Your task to perform on an android device: Show me popular games on the Play Store Image 0: 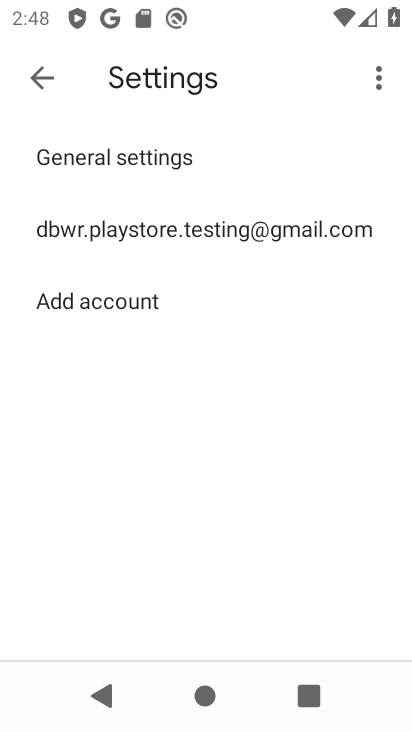
Step 0: press home button
Your task to perform on an android device: Show me popular games on the Play Store Image 1: 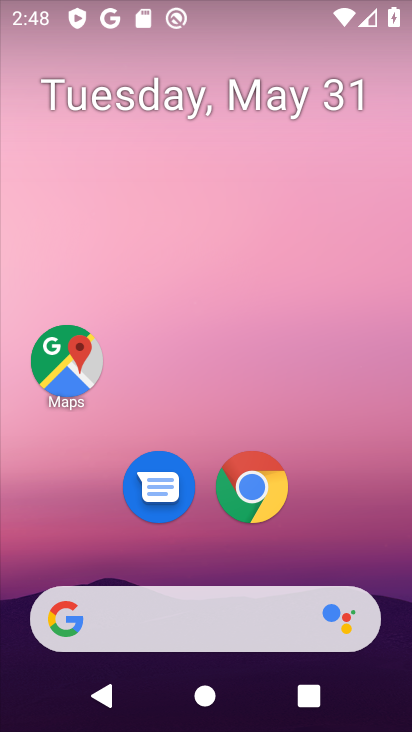
Step 1: drag from (6, 580) to (215, 121)
Your task to perform on an android device: Show me popular games on the Play Store Image 2: 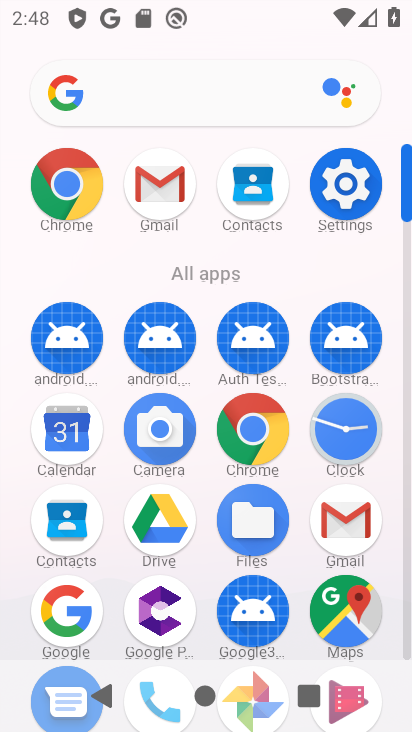
Step 2: drag from (216, 580) to (304, 303)
Your task to perform on an android device: Show me popular games on the Play Store Image 3: 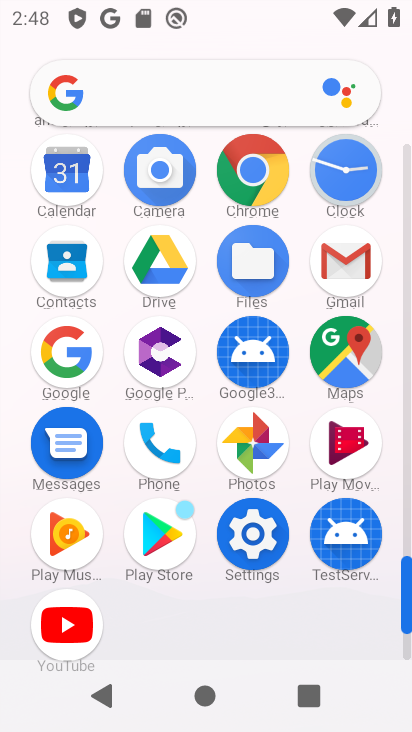
Step 3: click (171, 552)
Your task to perform on an android device: Show me popular games on the Play Store Image 4: 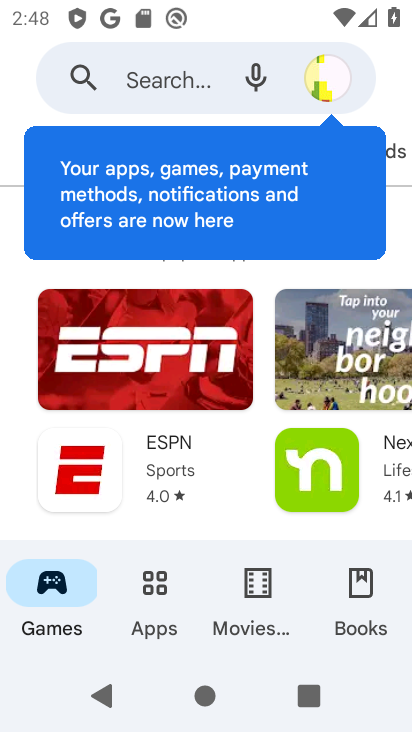
Step 4: drag from (151, 542) to (281, 166)
Your task to perform on an android device: Show me popular games on the Play Store Image 5: 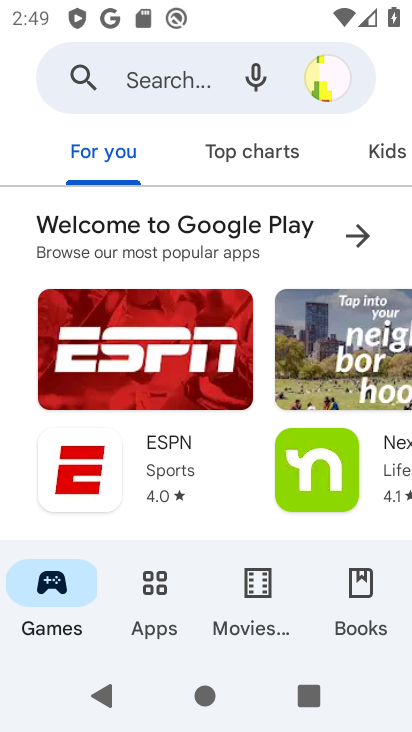
Step 5: drag from (173, 496) to (268, 124)
Your task to perform on an android device: Show me popular games on the Play Store Image 6: 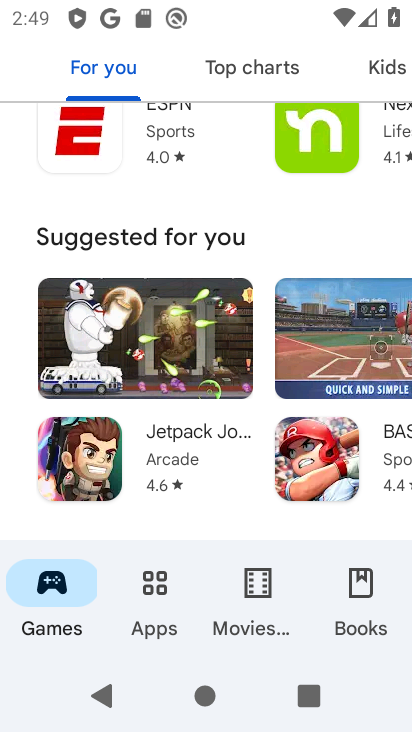
Step 6: drag from (148, 548) to (256, 81)
Your task to perform on an android device: Show me popular games on the Play Store Image 7: 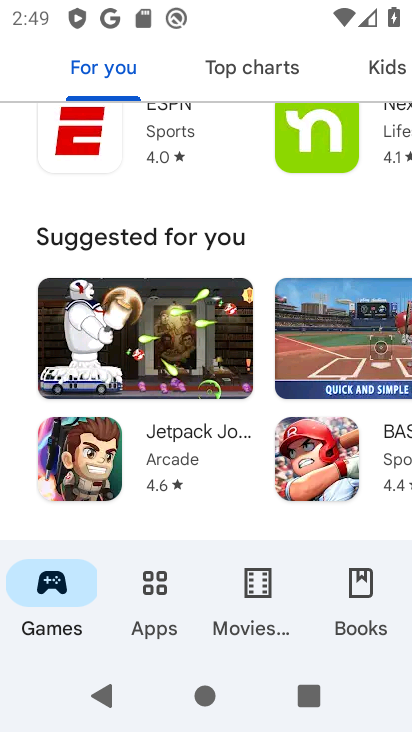
Step 7: drag from (130, 513) to (309, 63)
Your task to perform on an android device: Show me popular games on the Play Store Image 8: 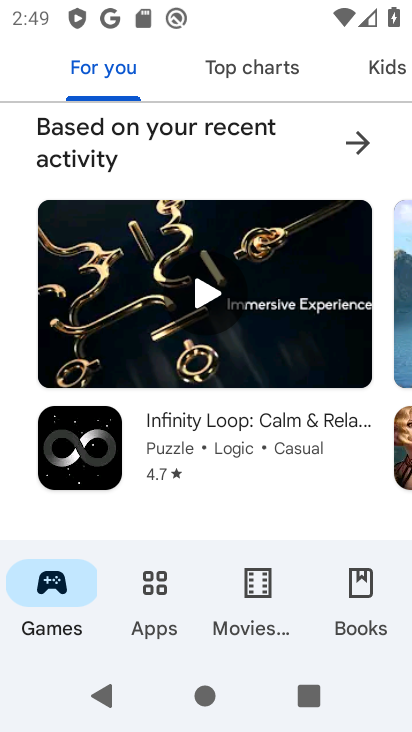
Step 8: drag from (243, 528) to (323, 128)
Your task to perform on an android device: Show me popular games on the Play Store Image 9: 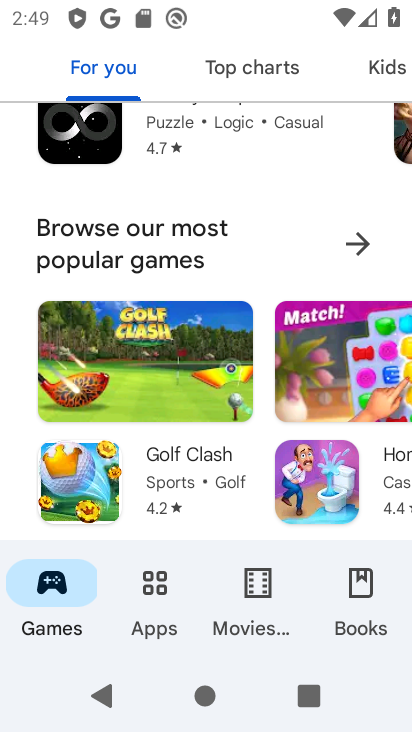
Step 9: drag from (132, 539) to (252, 212)
Your task to perform on an android device: Show me popular games on the Play Store Image 10: 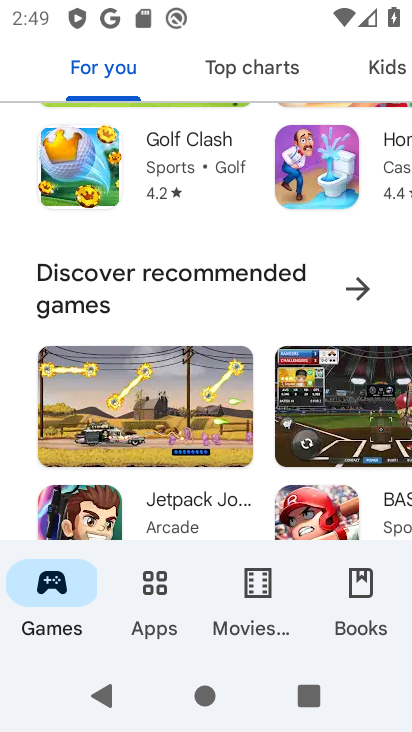
Step 10: drag from (239, 225) to (194, 539)
Your task to perform on an android device: Show me popular games on the Play Store Image 11: 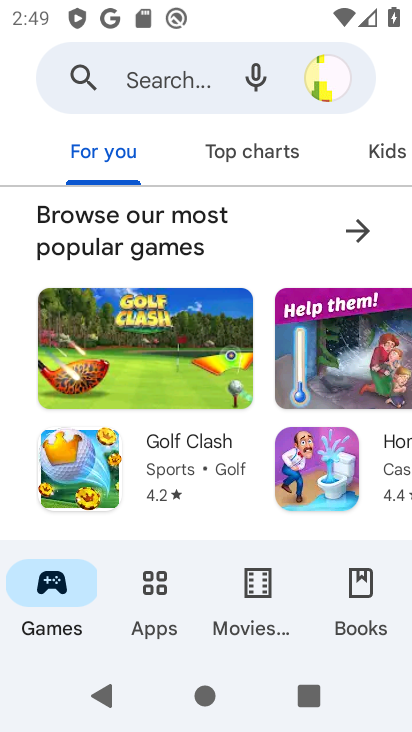
Step 11: click (354, 235)
Your task to perform on an android device: Show me popular games on the Play Store Image 12: 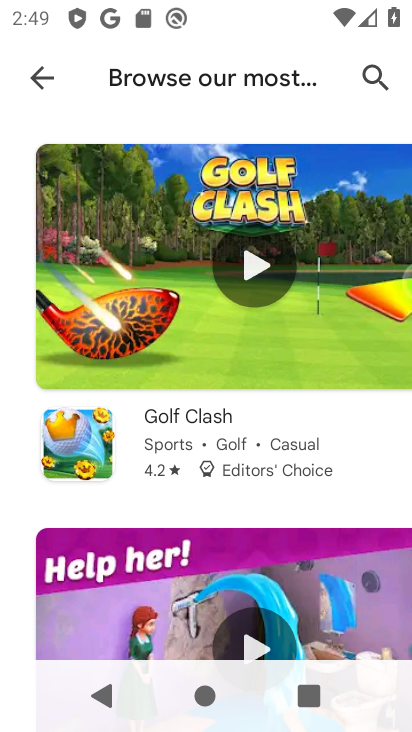
Step 12: task complete